Your task to perform on an android device: turn off javascript in the chrome app Image 0: 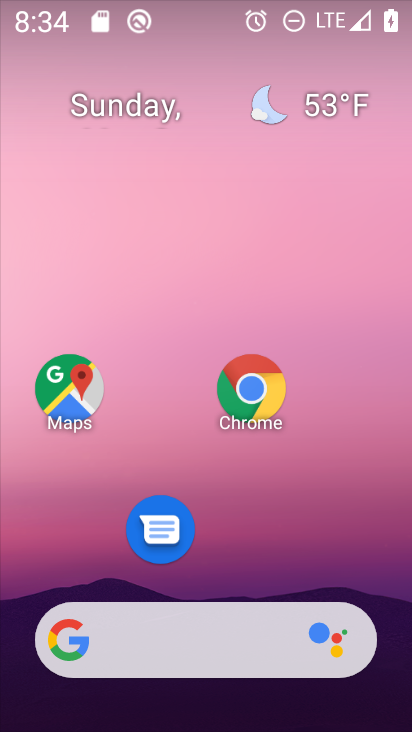
Step 0: click (245, 398)
Your task to perform on an android device: turn off javascript in the chrome app Image 1: 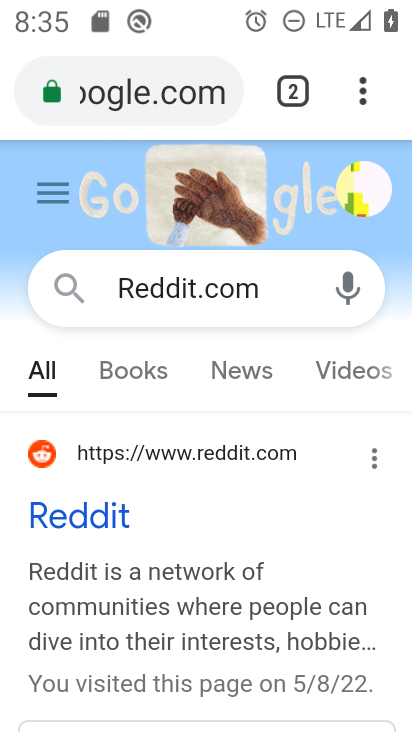
Step 1: click (358, 87)
Your task to perform on an android device: turn off javascript in the chrome app Image 2: 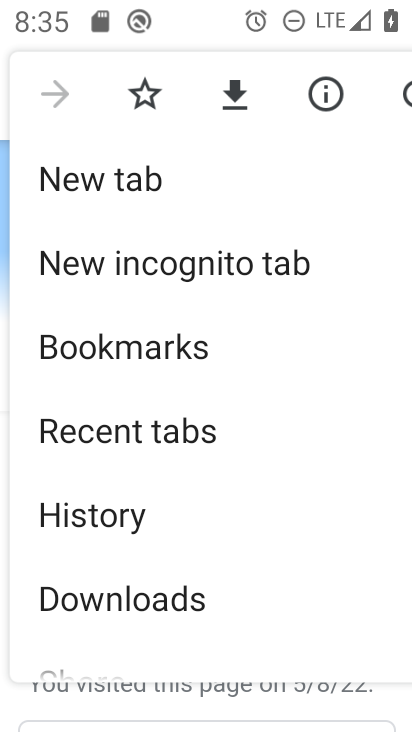
Step 2: drag from (140, 617) to (167, 100)
Your task to perform on an android device: turn off javascript in the chrome app Image 3: 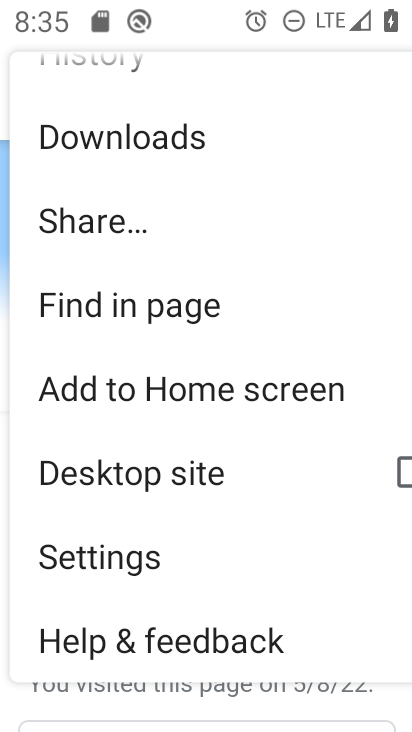
Step 3: click (101, 551)
Your task to perform on an android device: turn off javascript in the chrome app Image 4: 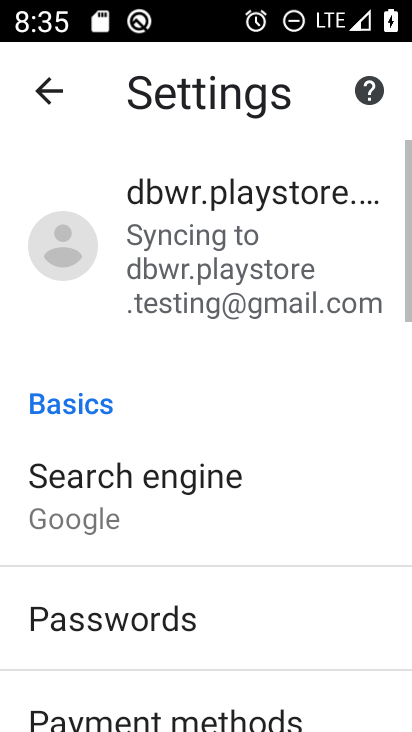
Step 4: drag from (149, 623) to (174, 315)
Your task to perform on an android device: turn off javascript in the chrome app Image 5: 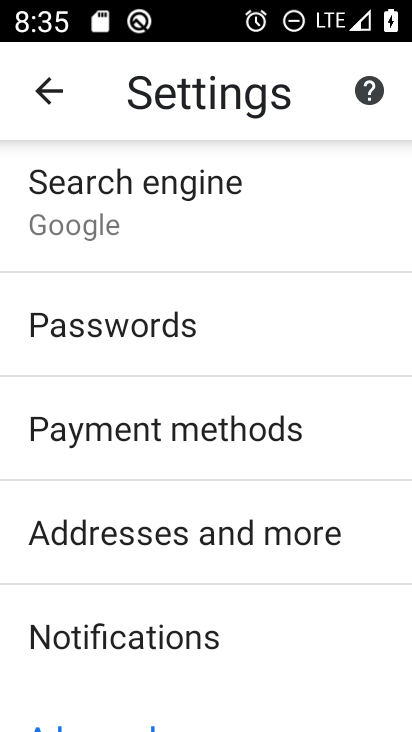
Step 5: drag from (188, 590) to (231, 231)
Your task to perform on an android device: turn off javascript in the chrome app Image 6: 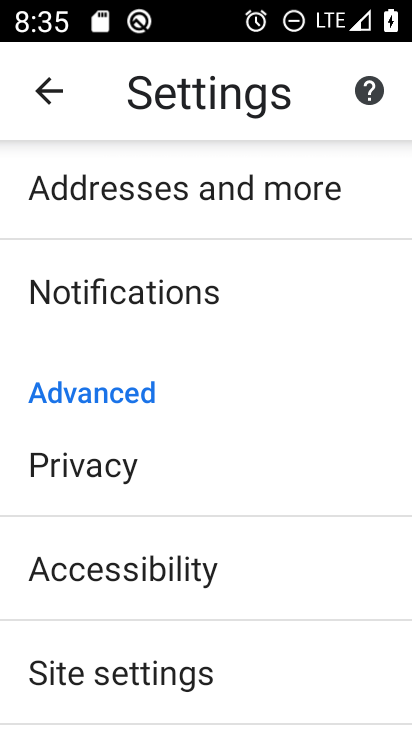
Step 6: drag from (180, 505) to (219, 272)
Your task to perform on an android device: turn off javascript in the chrome app Image 7: 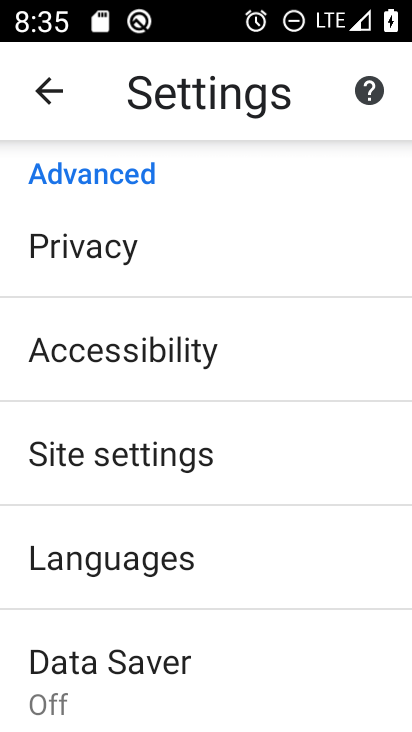
Step 7: click (150, 464)
Your task to perform on an android device: turn off javascript in the chrome app Image 8: 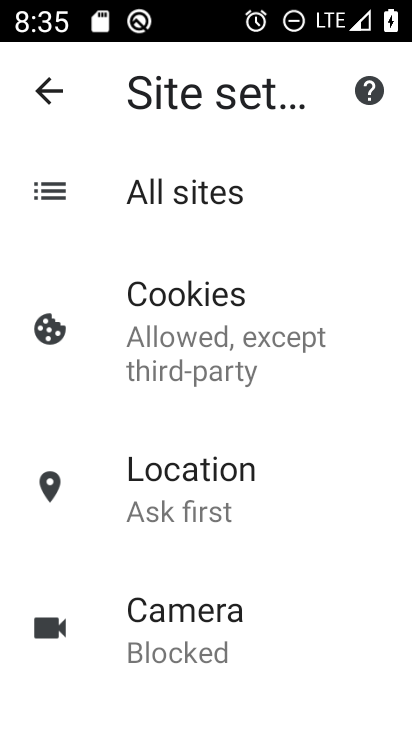
Step 8: drag from (200, 560) to (255, 265)
Your task to perform on an android device: turn off javascript in the chrome app Image 9: 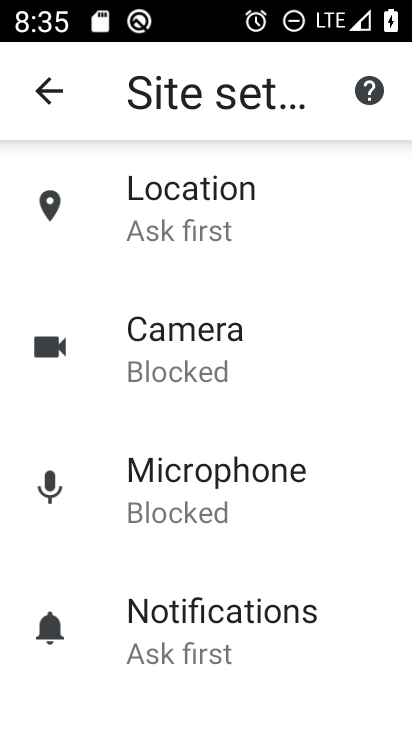
Step 9: drag from (179, 594) to (242, 231)
Your task to perform on an android device: turn off javascript in the chrome app Image 10: 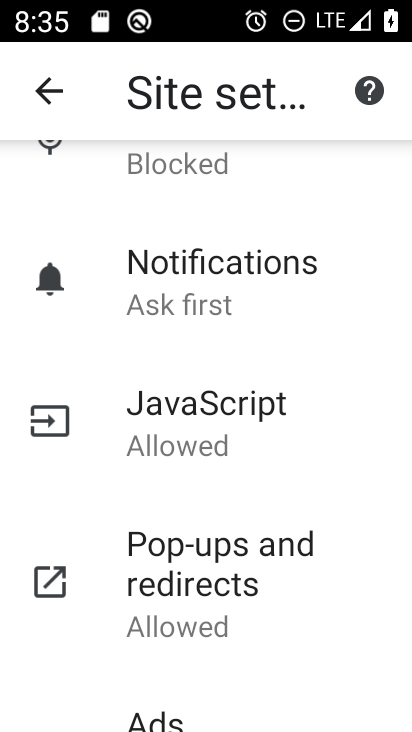
Step 10: click (182, 442)
Your task to perform on an android device: turn off javascript in the chrome app Image 11: 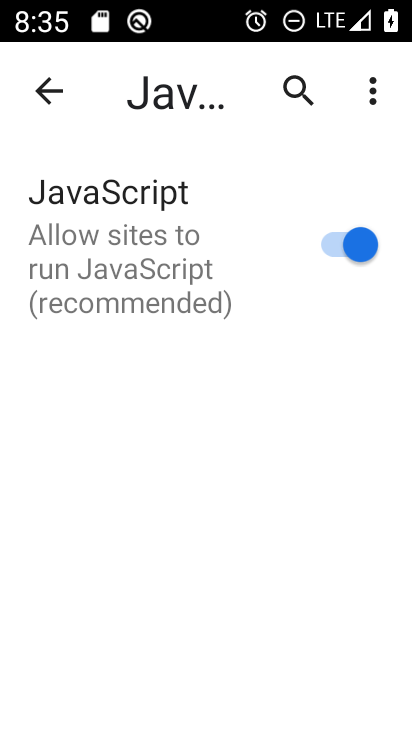
Step 11: click (325, 253)
Your task to perform on an android device: turn off javascript in the chrome app Image 12: 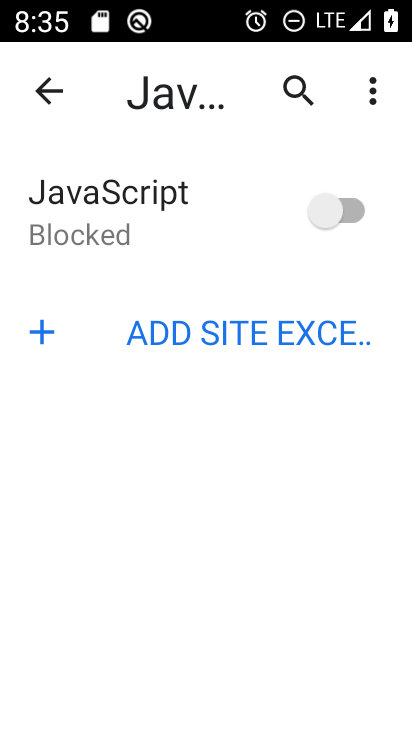
Step 12: task complete